Your task to perform on an android device: turn notification dots on Image 0: 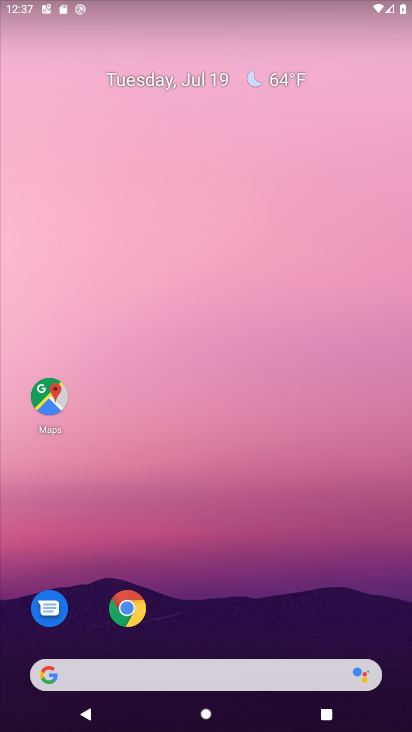
Step 0: drag from (229, 534) to (293, 108)
Your task to perform on an android device: turn notification dots on Image 1: 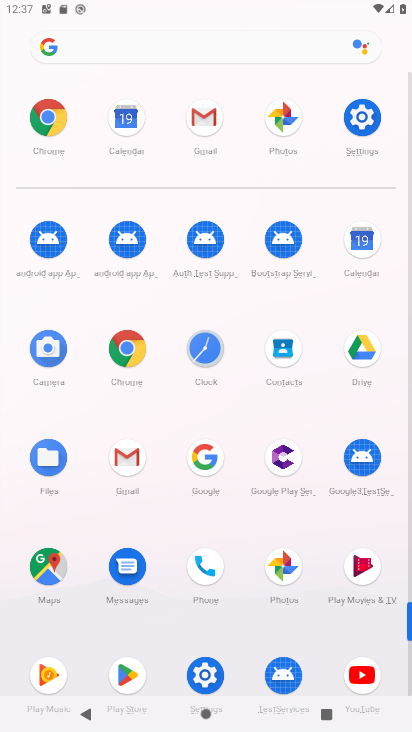
Step 1: click (217, 674)
Your task to perform on an android device: turn notification dots on Image 2: 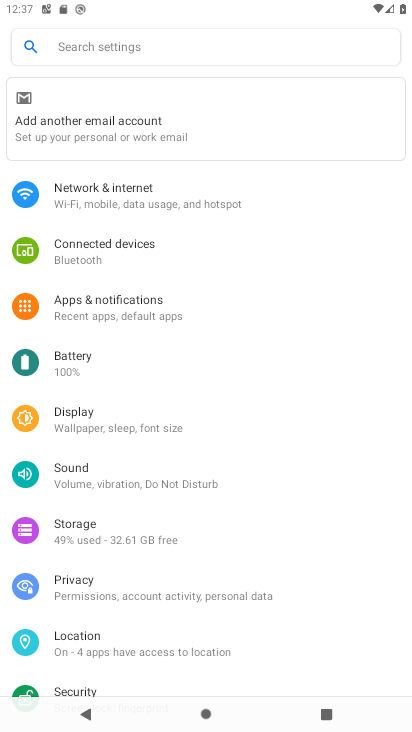
Step 2: click (206, 315)
Your task to perform on an android device: turn notification dots on Image 3: 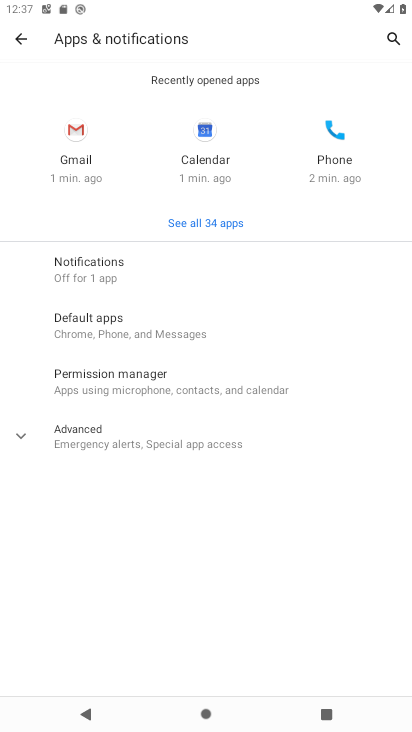
Step 3: click (239, 276)
Your task to perform on an android device: turn notification dots on Image 4: 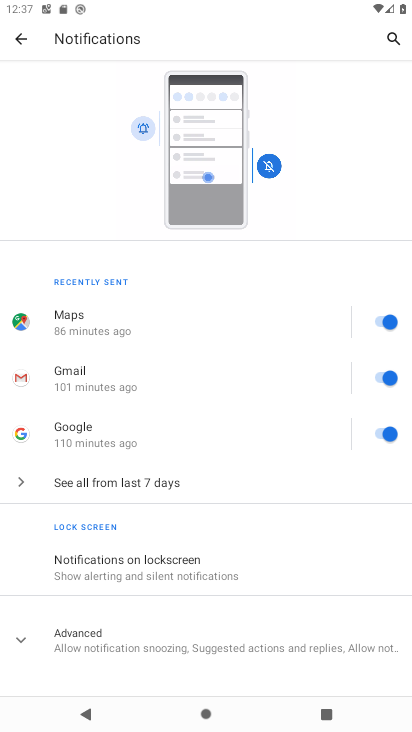
Step 4: click (197, 645)
Your task to perform on an android device: turn notification dots on Image 5: 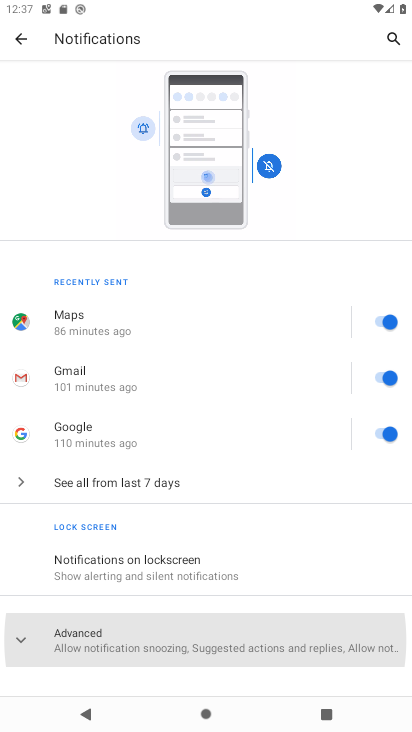
Step 5: drag from (194, 580) to (209, 151)
Your task to perform on an android device: turn notification dots on Image 6: 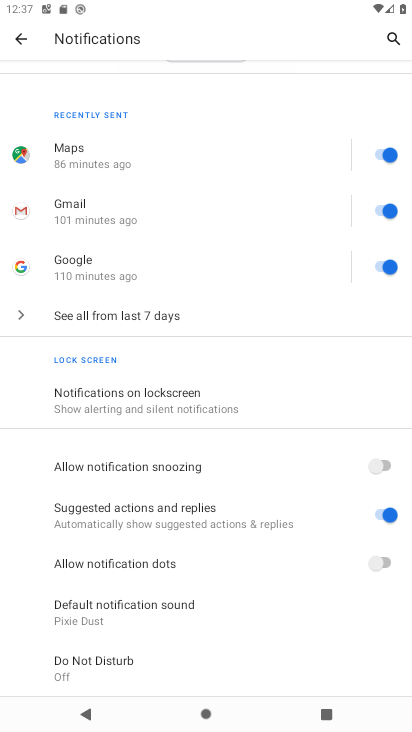
Step 6: click (375, 566)
Your task to perform on an android device: turn notification dots on Image 7: 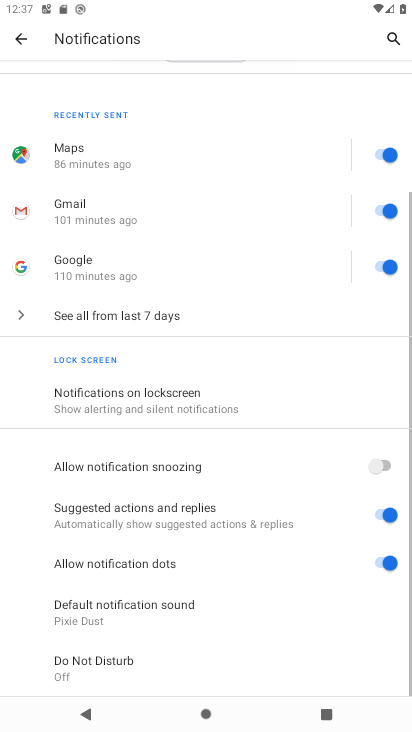
Step 7: task complete